Your task to perform on an android device: Open Amazon Image 0: 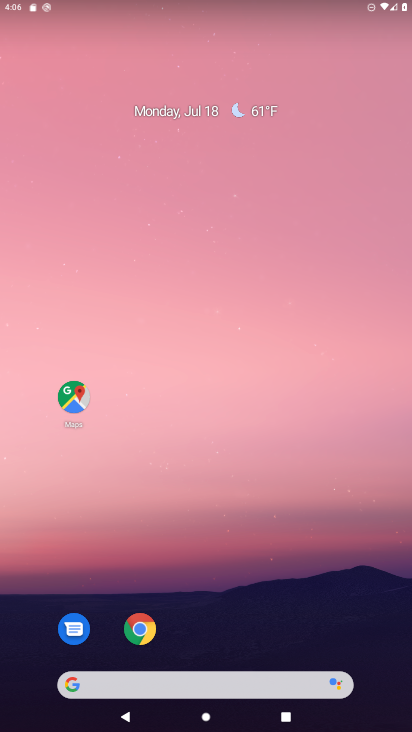
Step 0: drag from (242, 668) to (283, 247)
Your task to perform on an android device: Open Amazon Image 1: 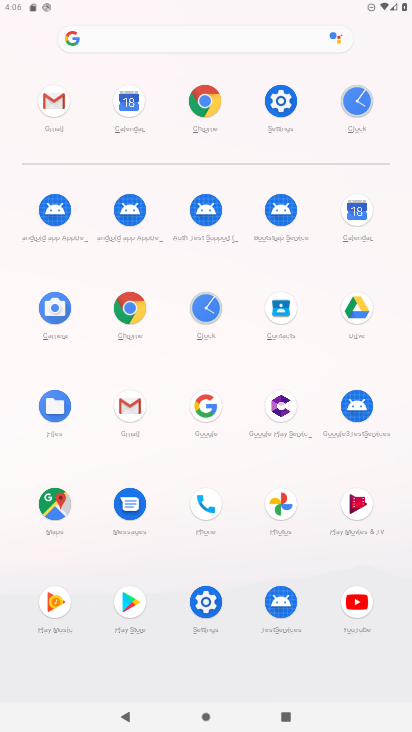
Step 1: click (206, 100)
Your task to perform on an android device: Open Amazon Image 2: 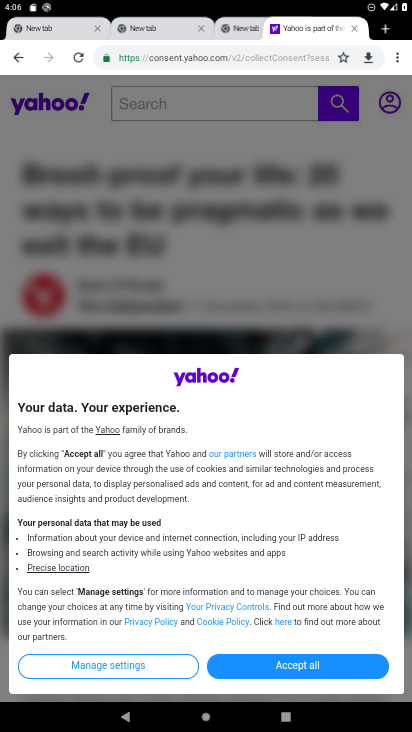
Step 2: click (354, 29)
Your task to perform on an android device: Open Amazon Image 3: 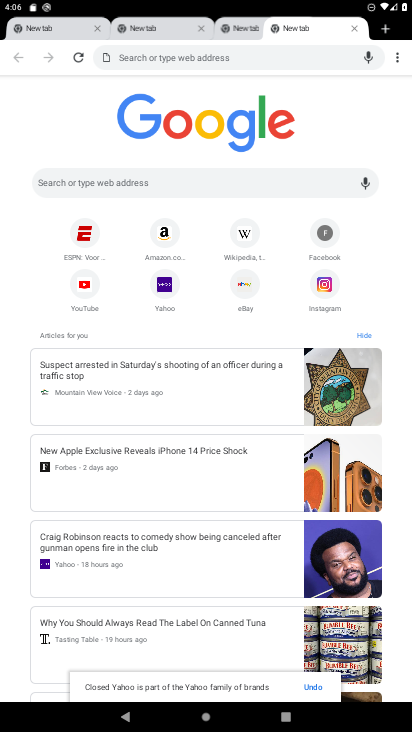
Step 3: click (354, 29)
Your task to perform on an android device: Open Amazon Image 4: 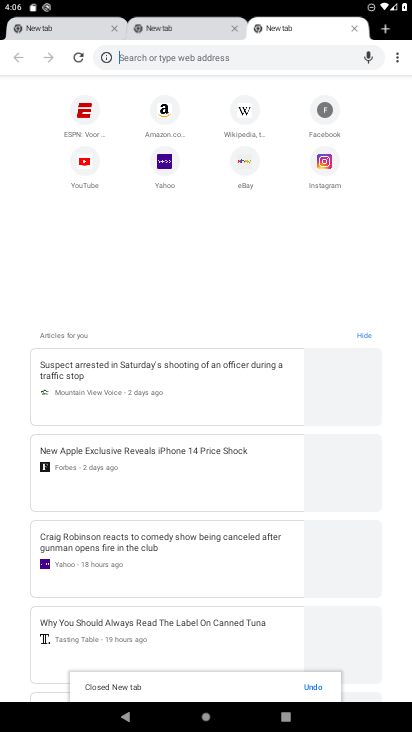
Step 4: click (353, 29)
Your task to perform on an android device: Open Amazon Image 5: 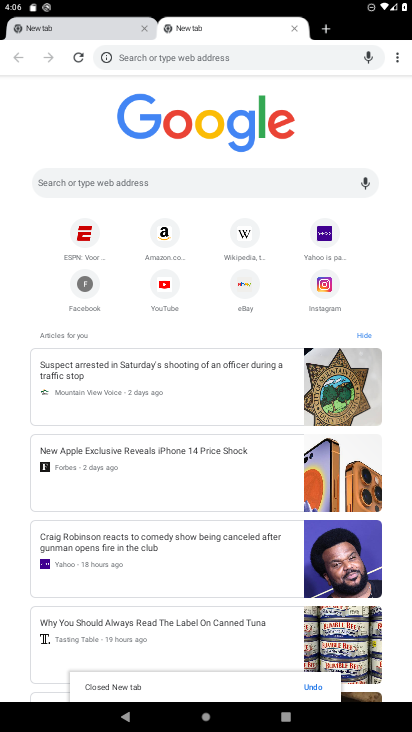
Step 5: click (293, 27)
Your task to perform on an android device: Open Amazon Image 6: 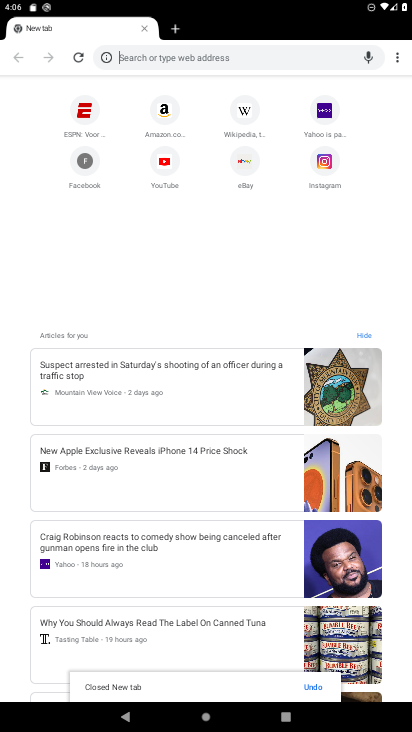
Step 6: click (174, 107)
Your task to perform on an android device: Open Amazon Image 7: 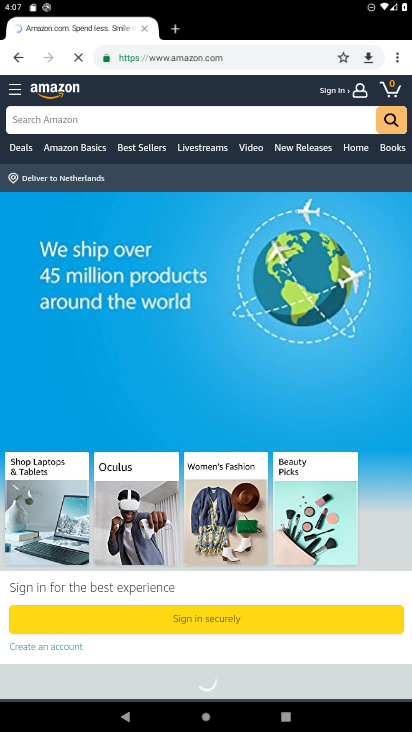
Step 7: task complete